Your task to perform on an android device: Open internet settings Image 0: 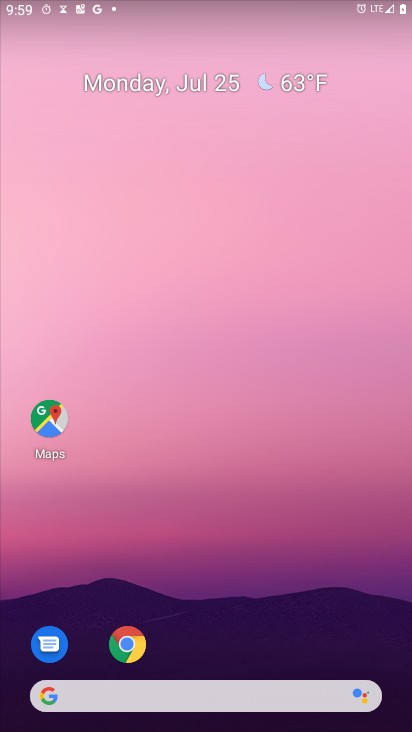
Step 0: drag from (214, 633) to (190, 239)
Your task to perform on an android device: Open internet settings Image 1: 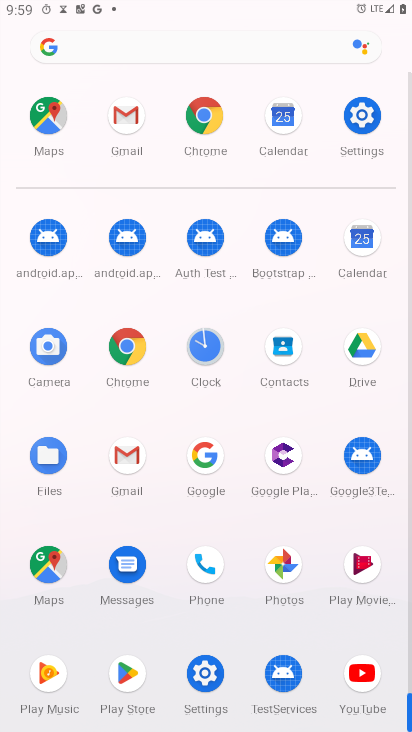
Step 1: click (354, 103)
Your task to perform on an android device: Open internet settings Image 2: 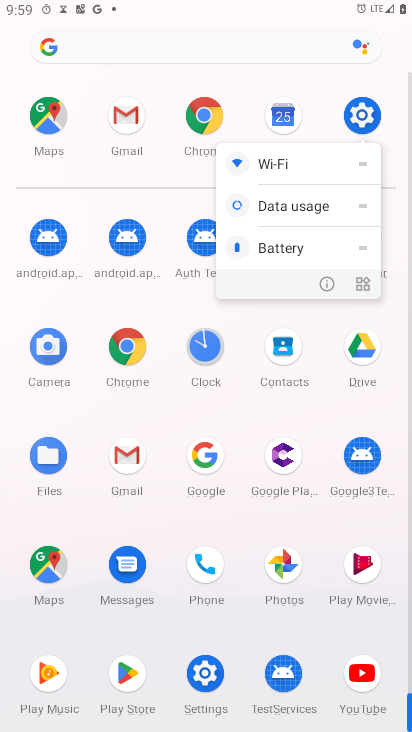
Step 2: click (360, 113)
Your task to perform on an android device: Open internet settings Image 3: 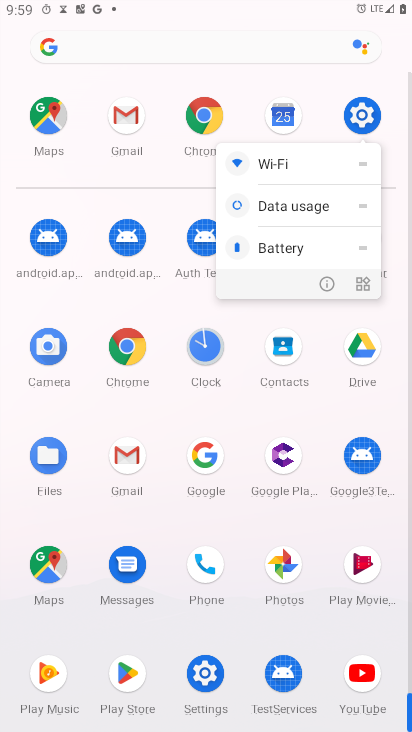
Step 3: click (364, 112)
Your task to perform on an android device: Open internet settings Image 4: 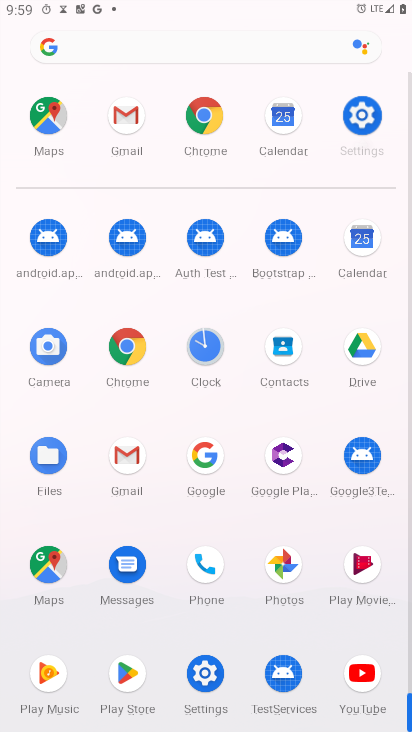
Step 4: click (364, 112)
Your task to perform on an android device: Open internet settings Image 5: 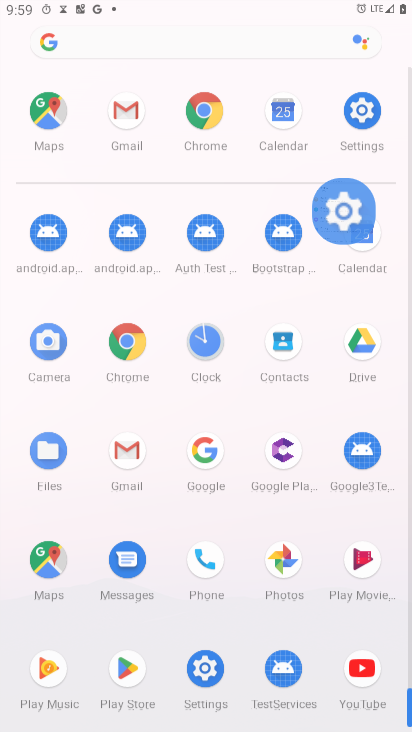
Step 5: click (364, 112)
Your task to perform on an android device: Open internet settings Image 6: 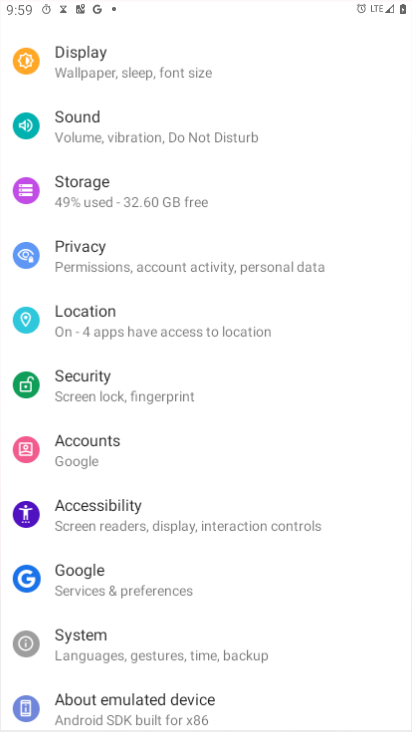
Step 6: click (364, 112)
Your task to perform on an android device: Open internet settings Image 7: 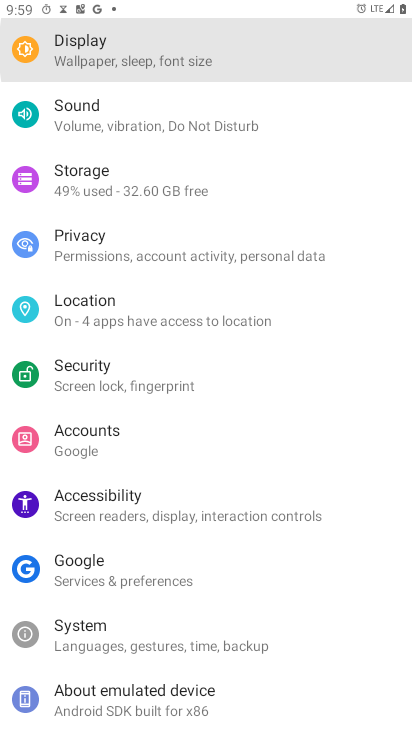
Step 7: click (364, 112)
Your task to perform on an android device: Open internet settings Image 8: 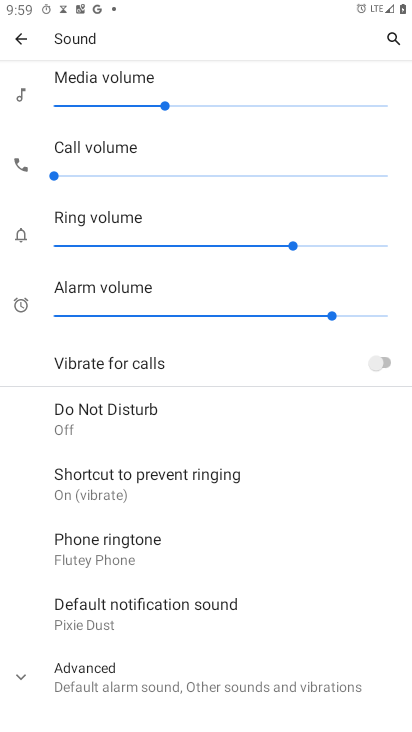
Step 8: drag from (148, 94) to (133, 372)
Your task to perform on an android device: Open internet settings Image 9: 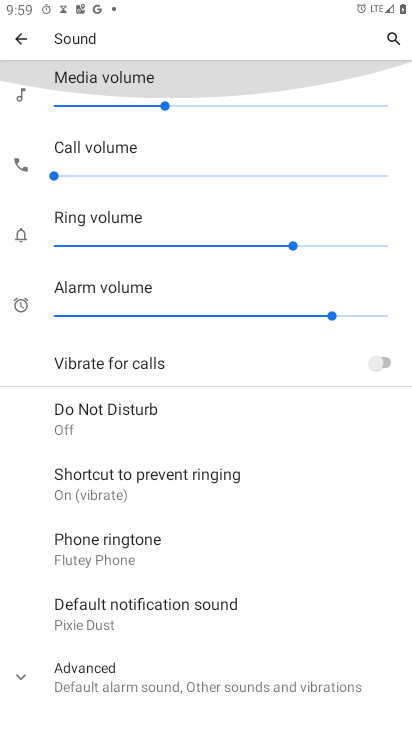
Step 9: drag from (115, 173) to (129, 372)
Your task to perform on an android device: Open internet settings Image 10: 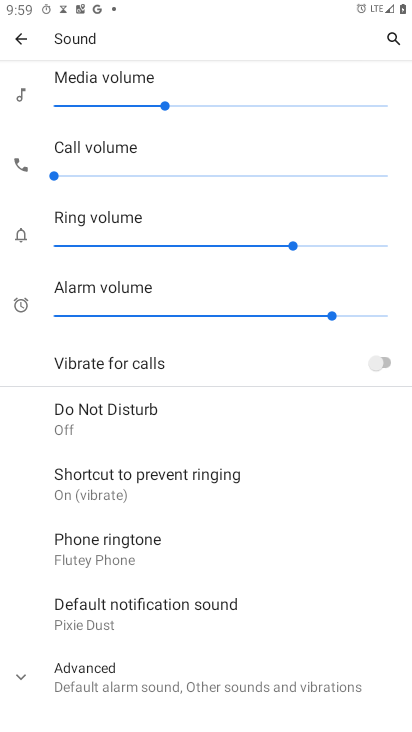
Step 10: click (14, 41)
Your task to perform on an android device: Open internet settings Image 11: 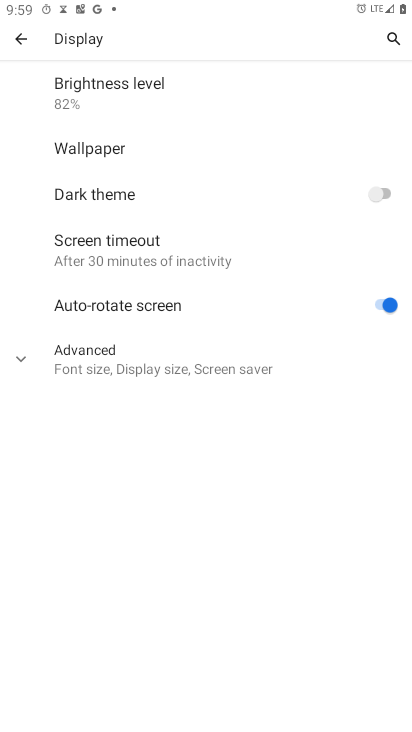
Step 11: click (24, 25)
Your task to perform on an android device: Open internet settings Image 12: 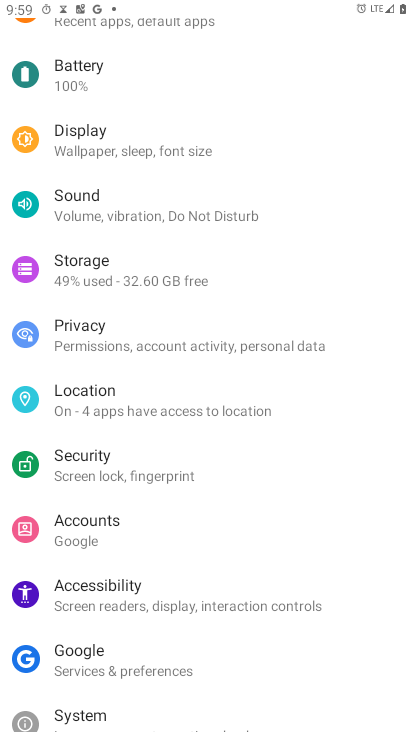
Step 12: click (15, 34)
Your task to perform on an android device: Open internet settings Image 13: 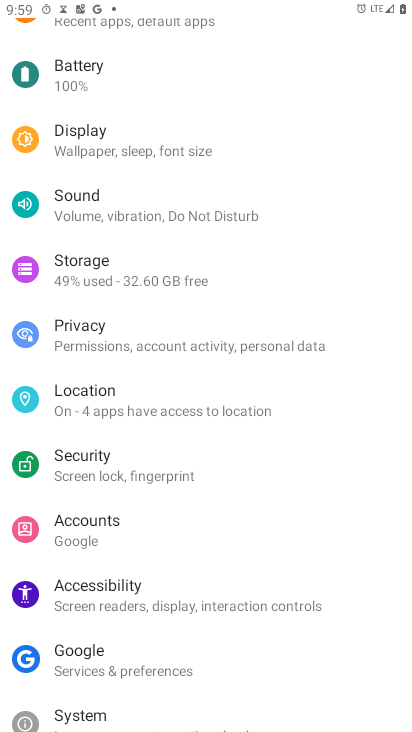
Step 13: drag from (64, 93) to (129, 401)
Your task to perform on an android device: Open internet settings Image 14: 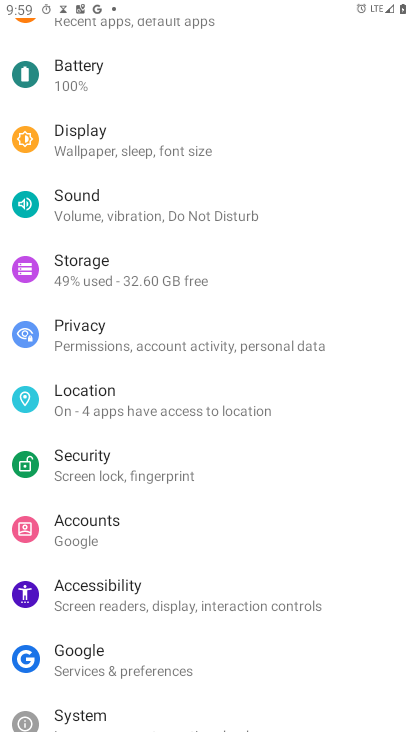
Step 14: drag from (96, 189) to (154, 548)
Your task to perform on an android device: Open internet settings Image 15: 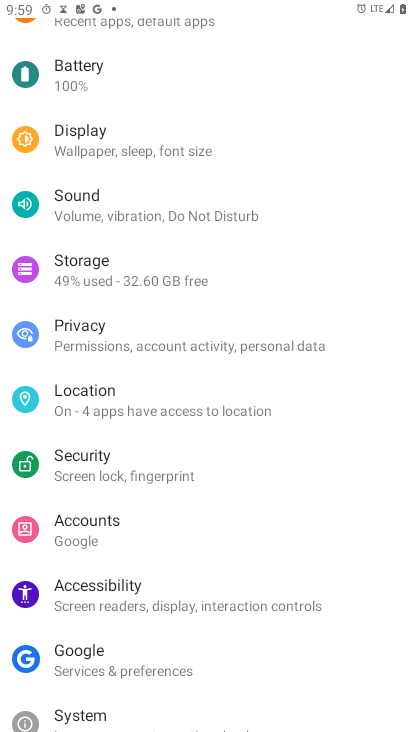
Step 15: drag from (109, 195) to (152, 550)
Your task to perform on an android device: Open internet settings Image 16: 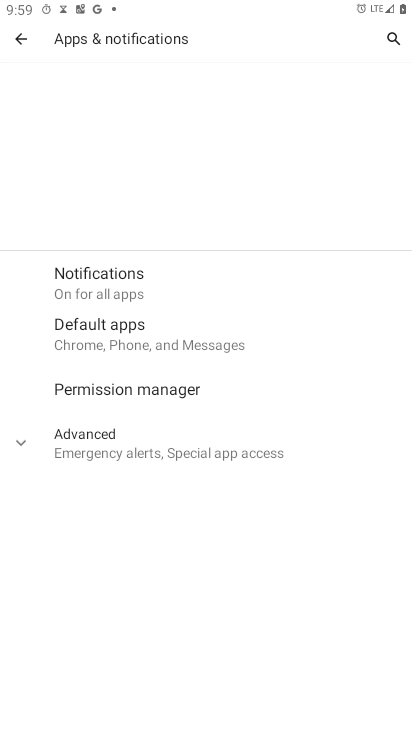
Step 16: drag from (137, 169) to (138, 561)
Your task to perform on an android device: Open internet settings Image 17: 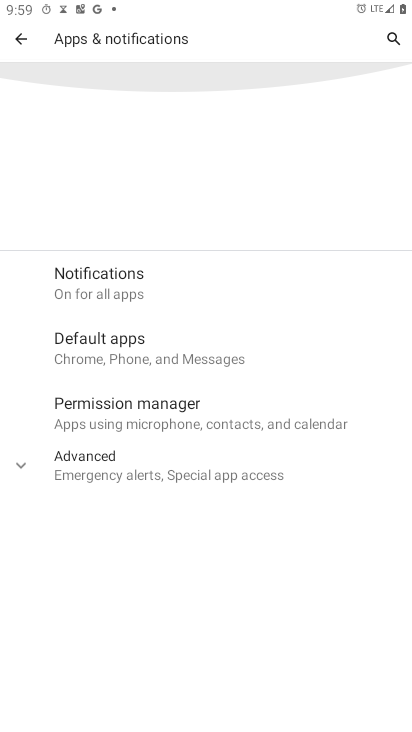
Step 17: drag from (182, 211) to (182, 611)
Your task to perform on an android device: Open internet settings Image 18: 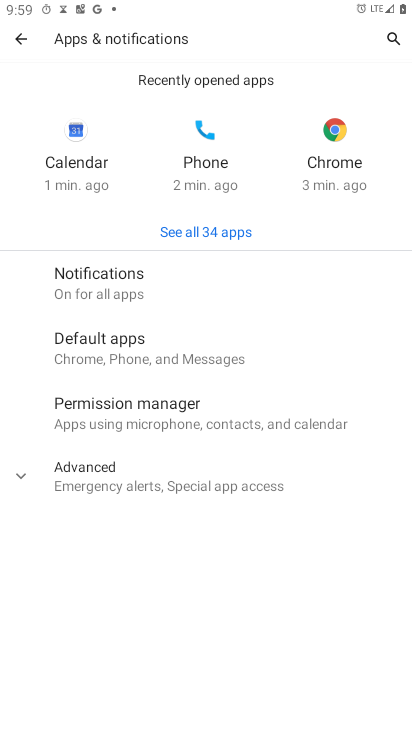
Step 18: click (26, 29)
Your task to perform on an android device: Open internet settings Image 19: 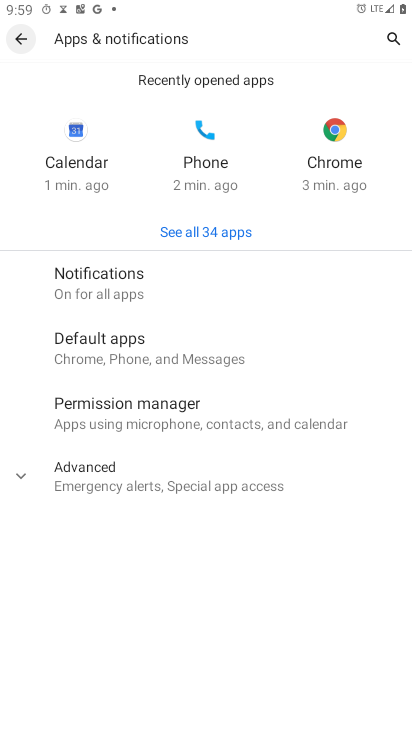
Step 19: click (13, 41)
Your task to perform on an android device: Open internet settings Image 20: 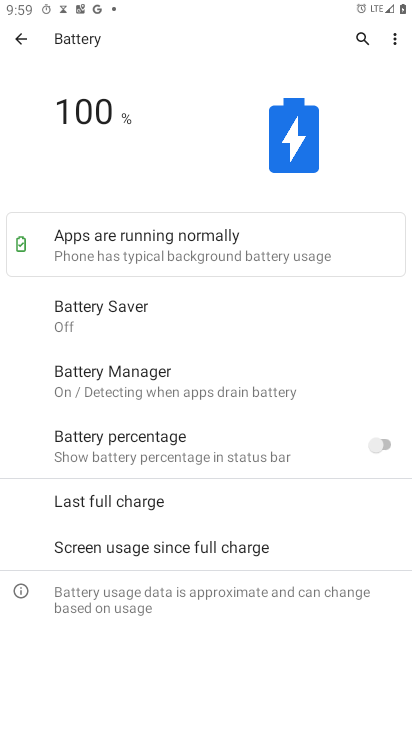
Step 20: drag from (121, 90) to (96, 603)
Your task to perform on an android device: Open internet settings Image 21: 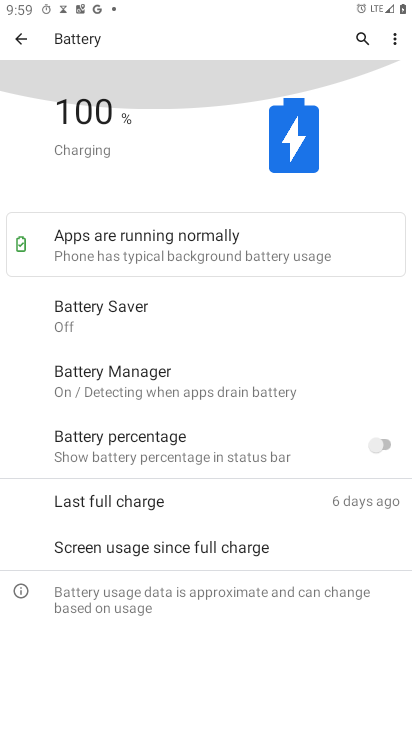
Step 21: drag from (143, 171) to (155, 527)
Your task to perform on an android device: Open internet settings Image 22: 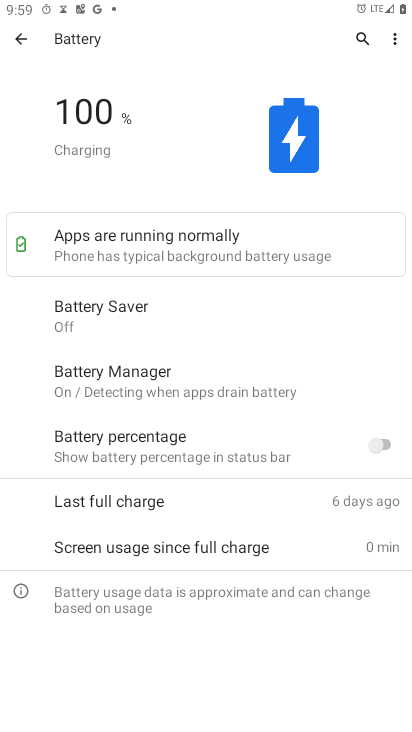
Step 22: click (16, 32)
Your task to perform on an android device: Open internet settings Image 23: 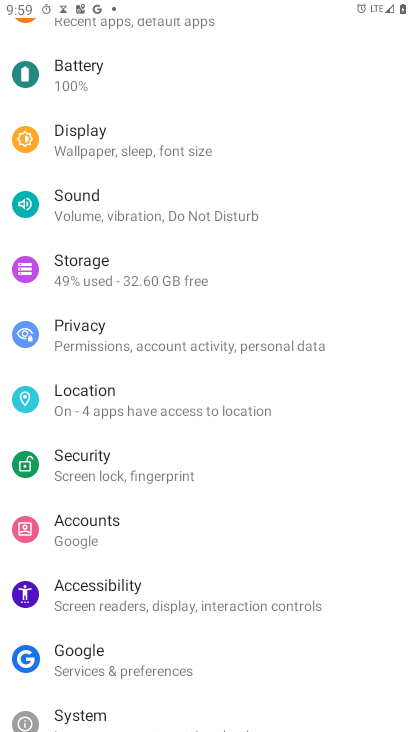
Step 23: drag from (113, 85) to (130, 459)
Your task to perform on an android device: Open internet settings Image 24: 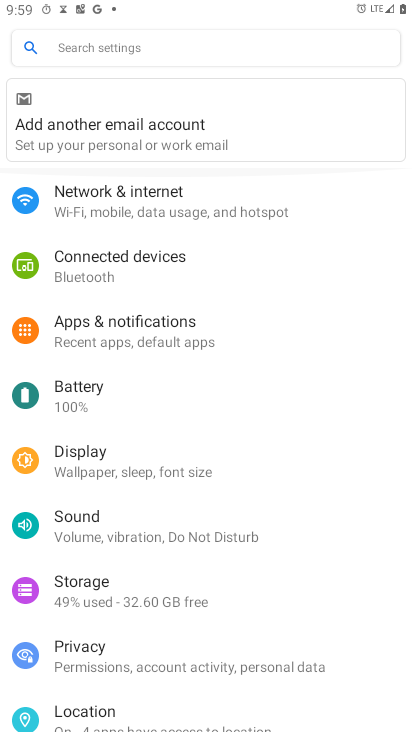
Step 24: drag from (233, 209) to (245, 541)
Your task to perform on an android device: Open internet settings Image 25: 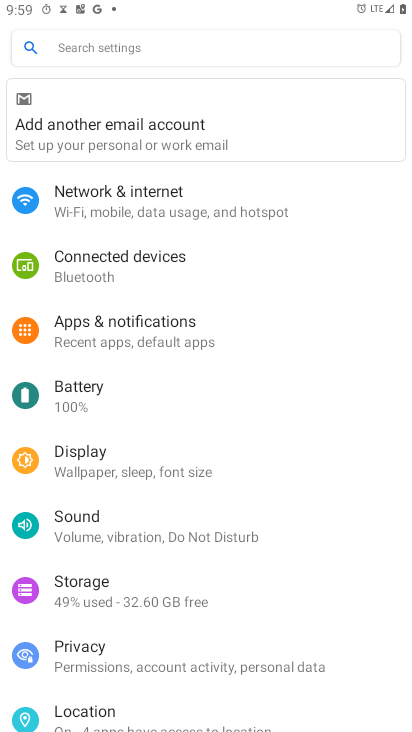
Step 25: drag from (278, 205) to (285, 541)
Your task to perform on an android device: Open internet settings Image 26: 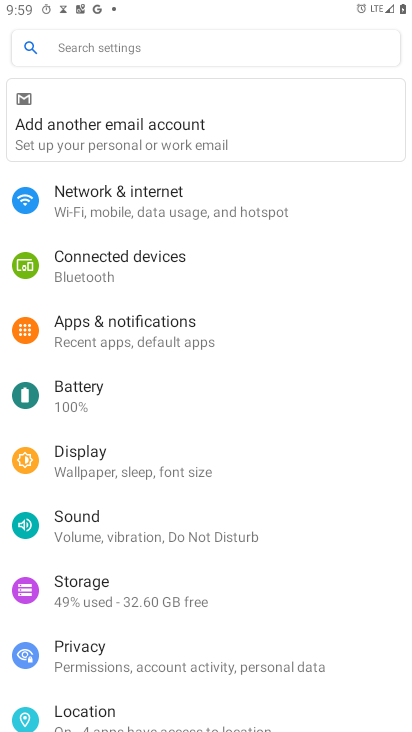
Step 26: click (167, 191)
Your task to perform on an android device: Open internet settings Image 27: 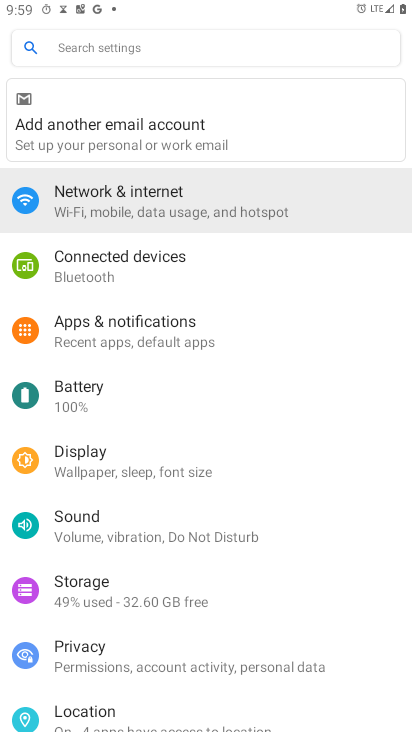
Step 27: click (172, 219)
Your task to perform on an android device: Open internet settings Image 28: 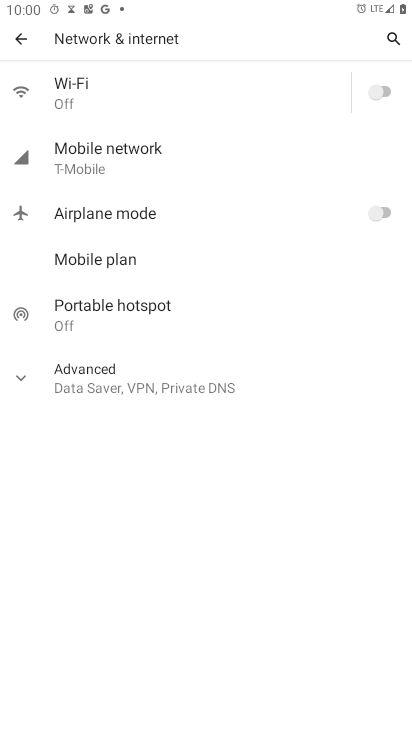
Step 28: task complete